Your task to perform on an android device: Search for seafood restaurants on Google Maps Image 0: 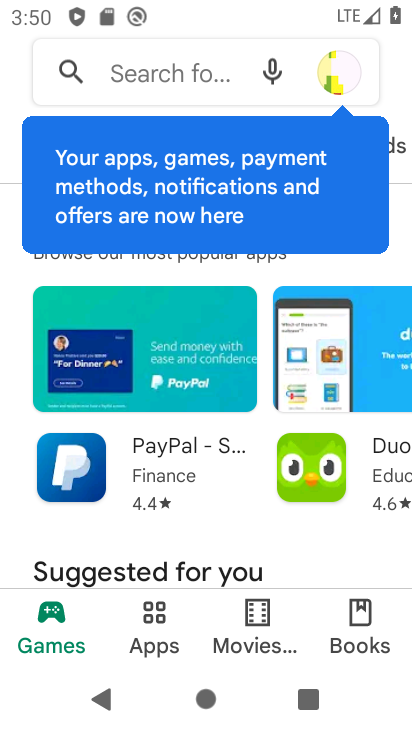
Step 0: press home button
Your task to perform on an android device: Search for seafood restaurants on Google Maps Image 1: 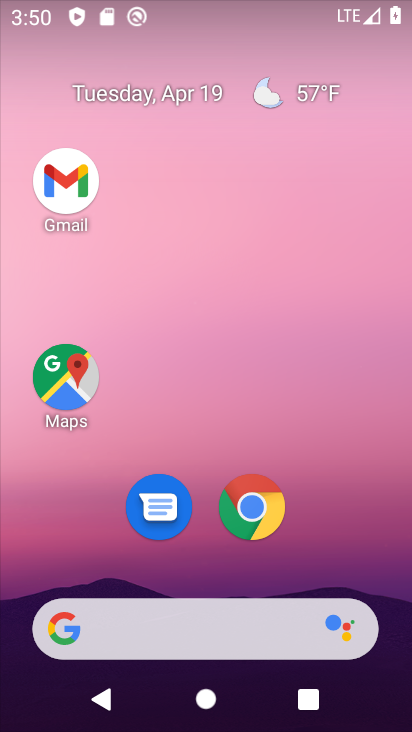
Step 1: click (84, 379)
Your task to perform on an android device: Search for seafood restaurants on Google Maps Image 2: 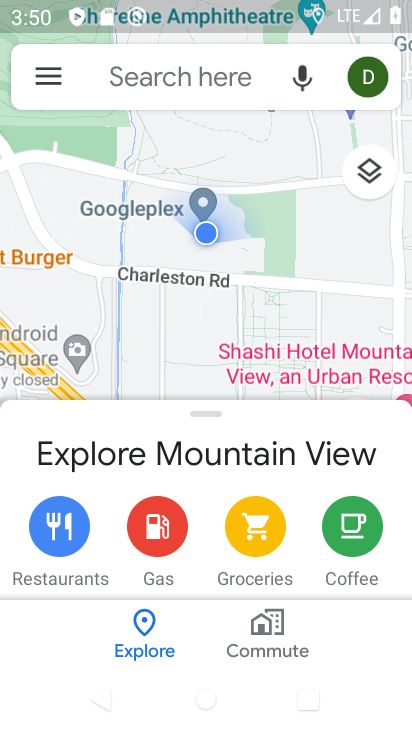
Step 2: click (209, 87)
Your task to perform on an android device: Search for seafood restaurants on Google Maps Image 3: 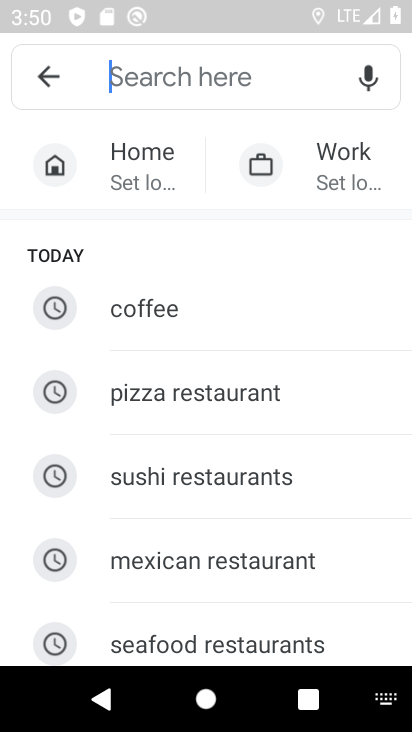
Step 3: type "sushi restaurants"
Your task to perform on an android device: Search for seafood restaurants on Google Maps Image 4: 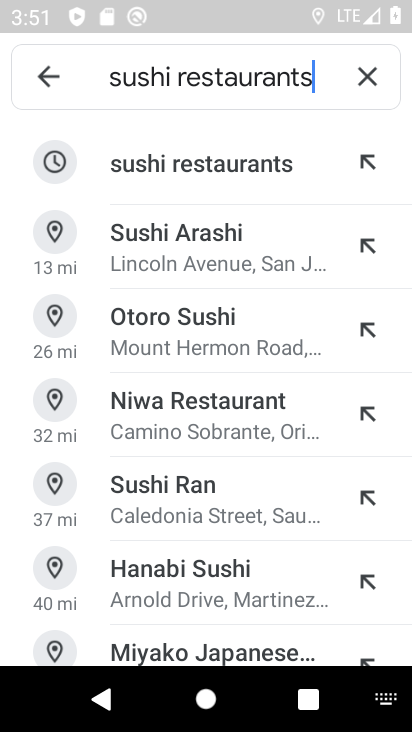
Step 4: click (367, 71)
Your task to perform on an android device: Search for seafood restaurants on Google Maps Image 5: 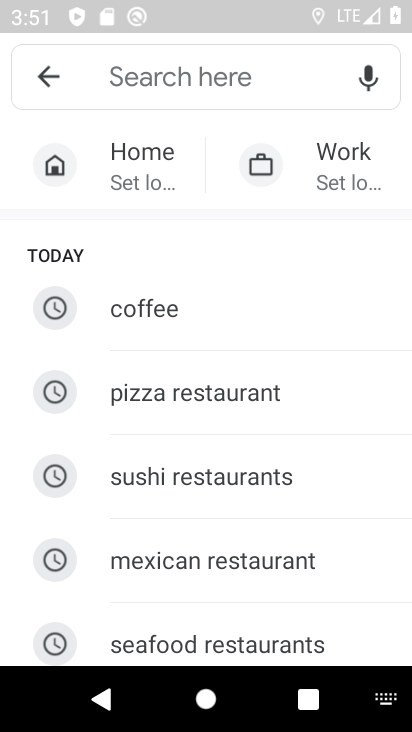
Step 5: type "seafood restaurants"
Your task to perform on an android device: Search for seafood restaurants on Google Maps Image 6: 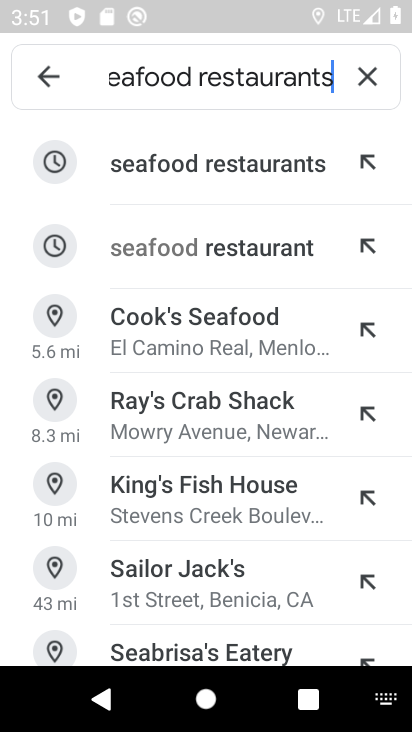
Step 6: task complete